Your task to perform on an android device: turn on the 12-hour format for clock Image 0: 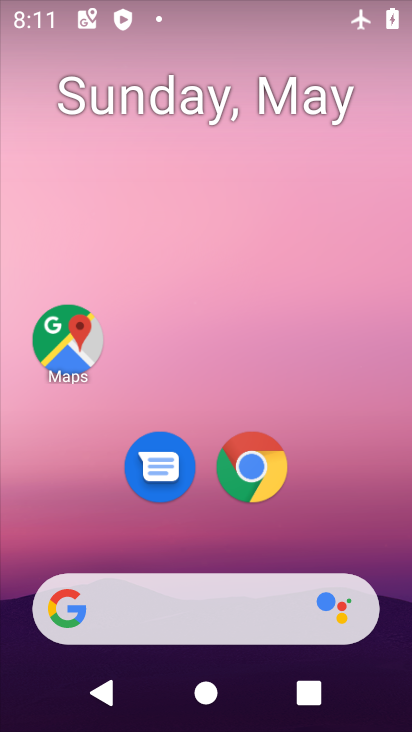
Step 0: drag from (191, 533) to (224, 9)
Your task to perform on an android device: turn on the 12-hour format for clock Image 1: 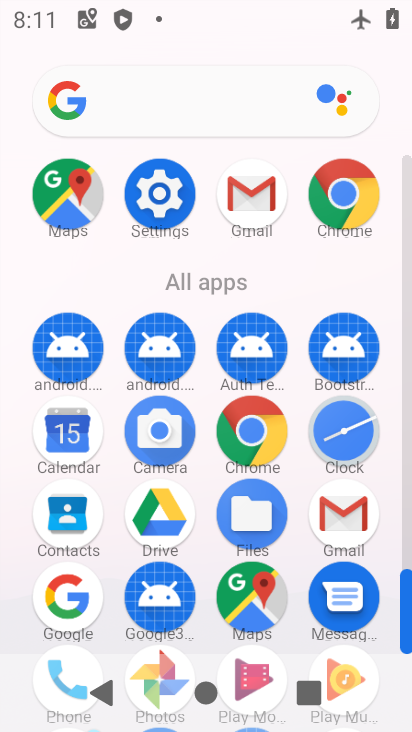
Step 1: click (361, 424)
Your task to perform on an android device: turn on the 12-hour format for clock Image 2: 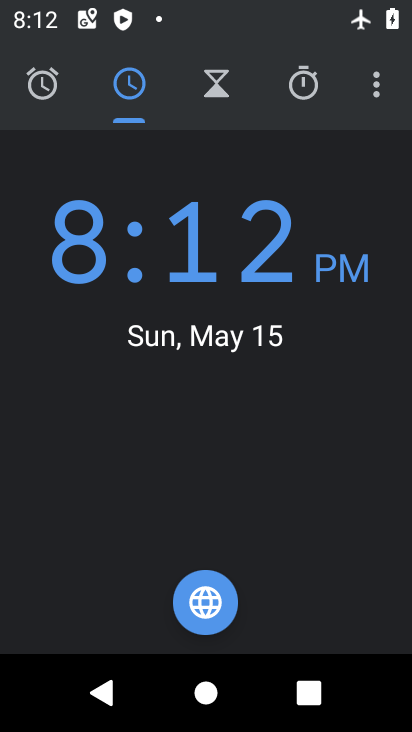
Step 2: click (377, 100)
Your task to perform on an android device: turn on the 12-hour format for clock Image 3: 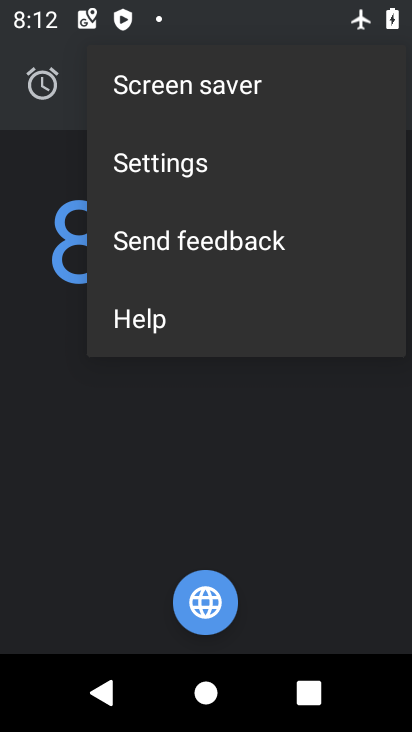
Step 3: click (198, 190)
Your task to perform on an android device: turn on the 12-hour format for clock Image 4: 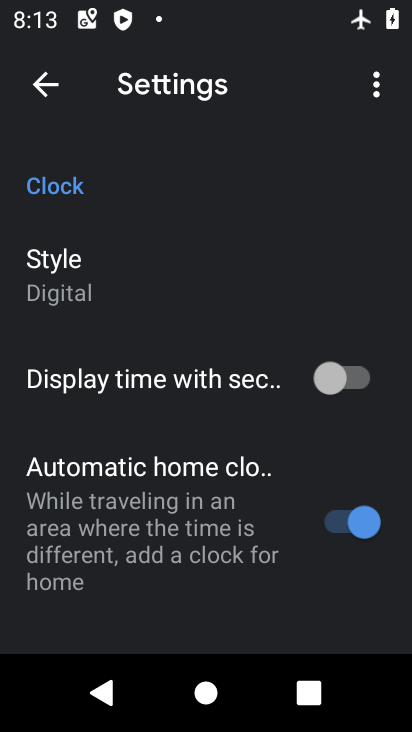
Step 4: task complete